Your task to perform on an android device: change keyboard looks Image 0: 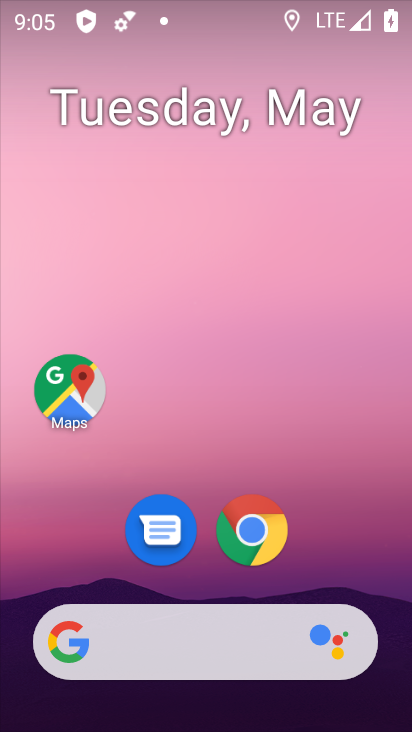
Step 0: drag from (357, 555) to (316, 50)
Your task to perform on an android device: change keyboard looks Image 1: 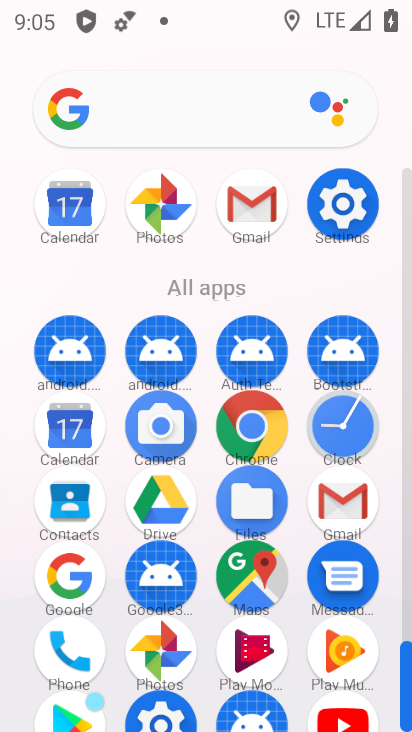
Step 1: click (338, 205)
Your task to perform on an android device: change keyboard looks Image 2: 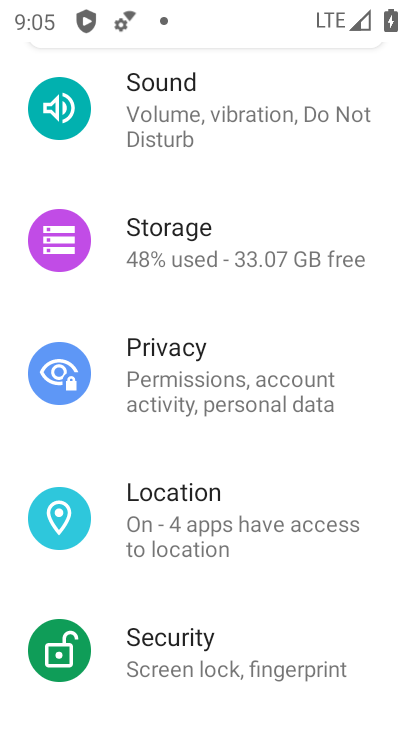
Step 2: drag from (239, 553) to (326, 190)
Your task to perform on an android device: change keyboard looks Image 3: 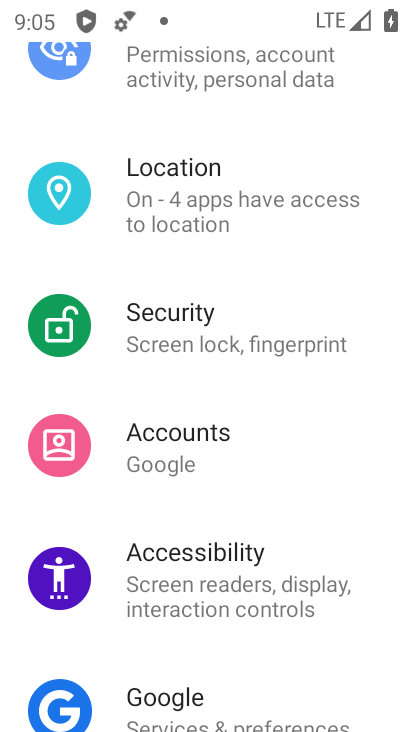
Step 3: drag from (254, 655) to (298, 266)
Your task to perform on an android device: change keyboard looks Image 4: 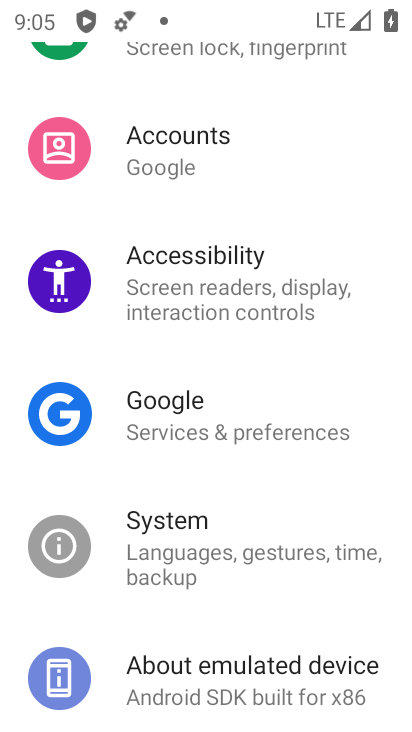
Step 4: click (180, 533)
Your task to perform on an android device: change keyboard looks Image 5: 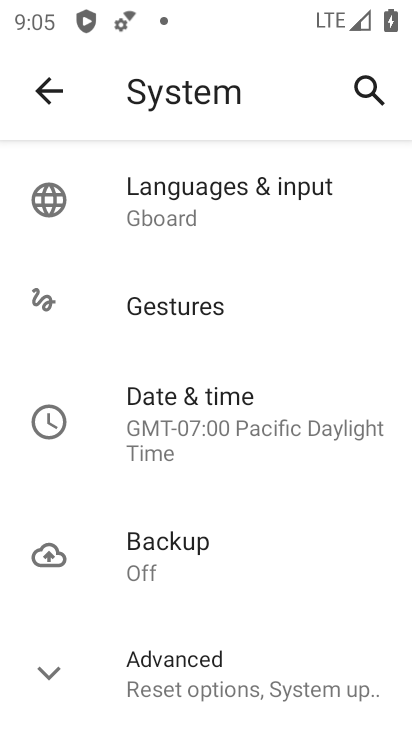
Step 5: click (203, 197)
Your task to perform on an android device: change keyboard looks Image 6: 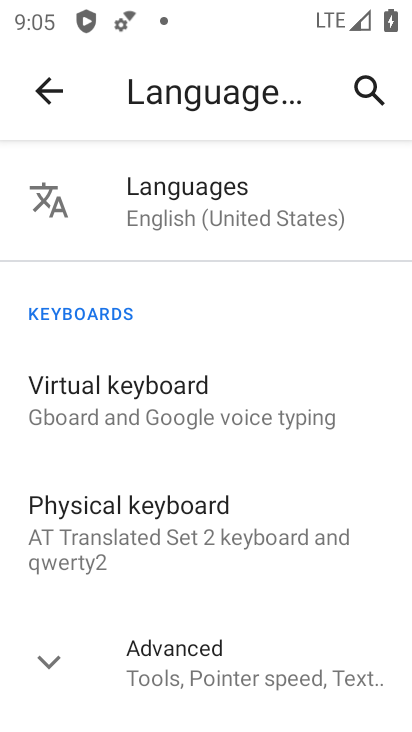
Step 6: click (156, 404)
Your task to perform on an android device: change keyboard looks Image 7: 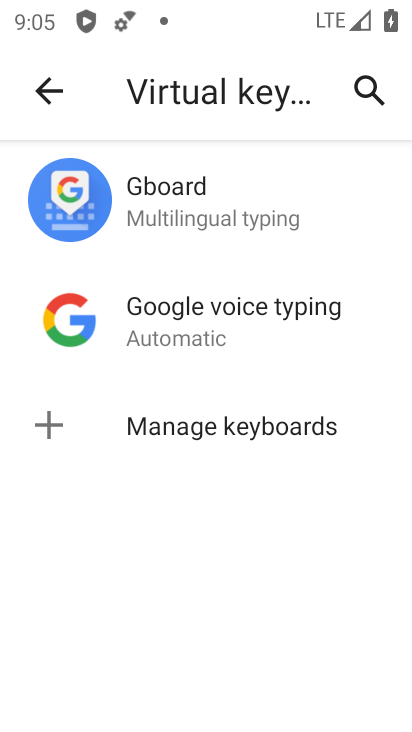
Step 7: click (194, 197)
Your task to perform on an android device: change keyboard looks Image 8: 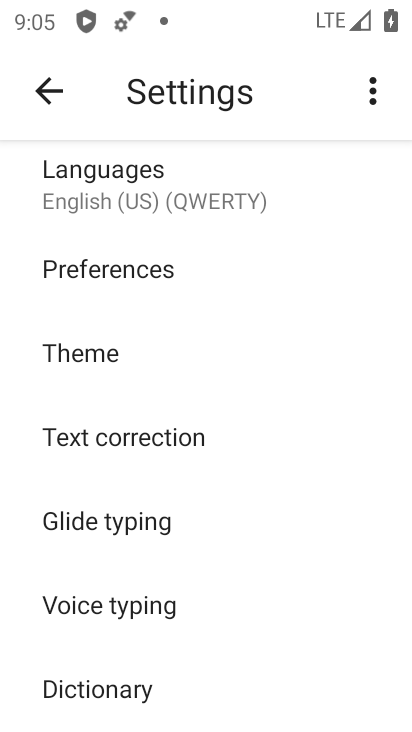
Step 8: click (107, 352)
Your task to perform on an android device: change keyboard looks Image 9: 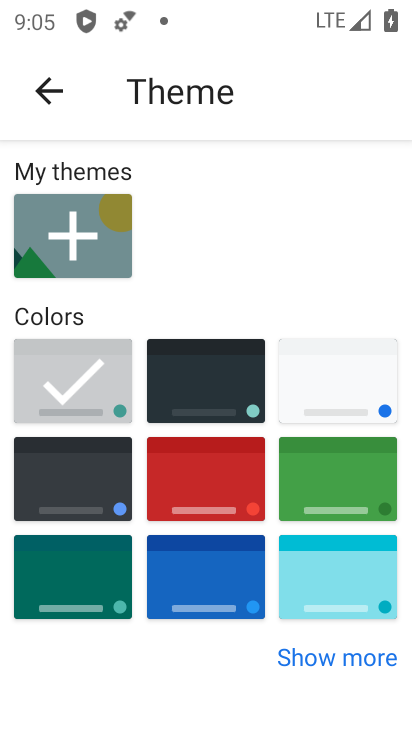
Step 9: click (321, 375)
Your task to perform on an android device: change keyboard looks Image 10: 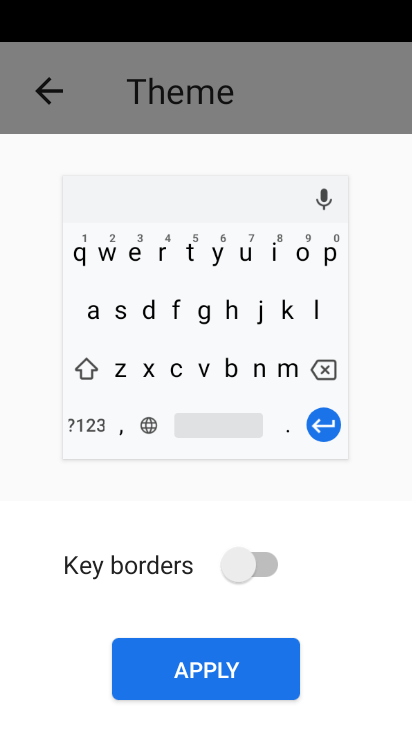
Step 10: click (246, 646)
Your task to perform on an android device: change keyboard looks Image 11: 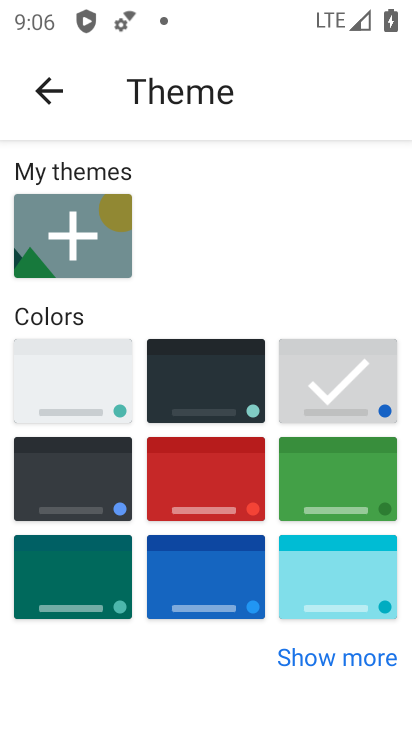
Step 11: click (243, 498)
Your task to perform on an android device: change keyboard looks Image 12: 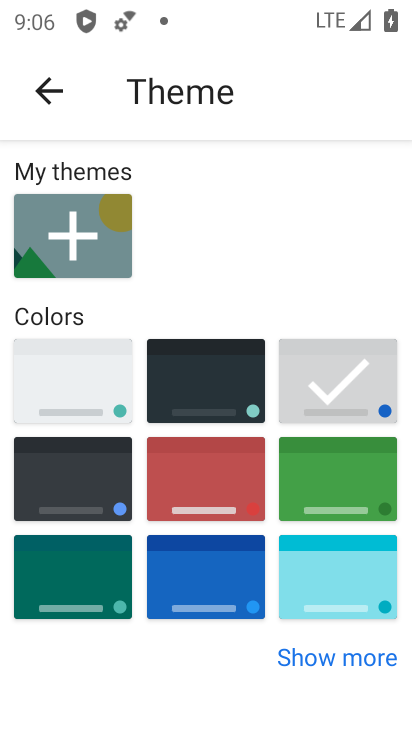
Step 12: task complete